Your task to perform on an android device: toggle pop-ups in chrome Image 0: 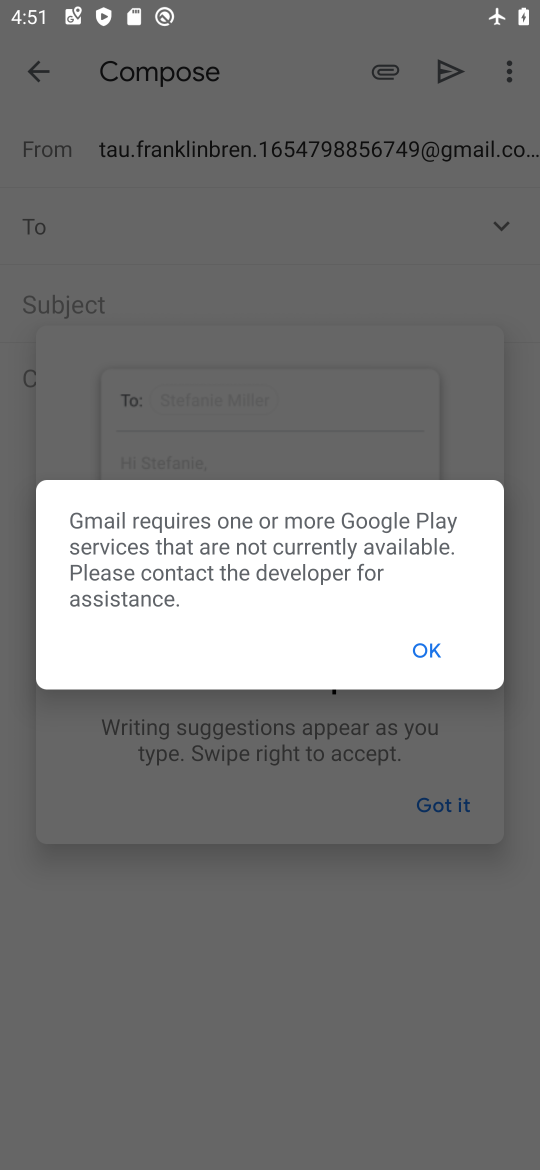
Step 0: press home button
Your task to perform on an android device: toggle pop-ups in chrome Image 1: 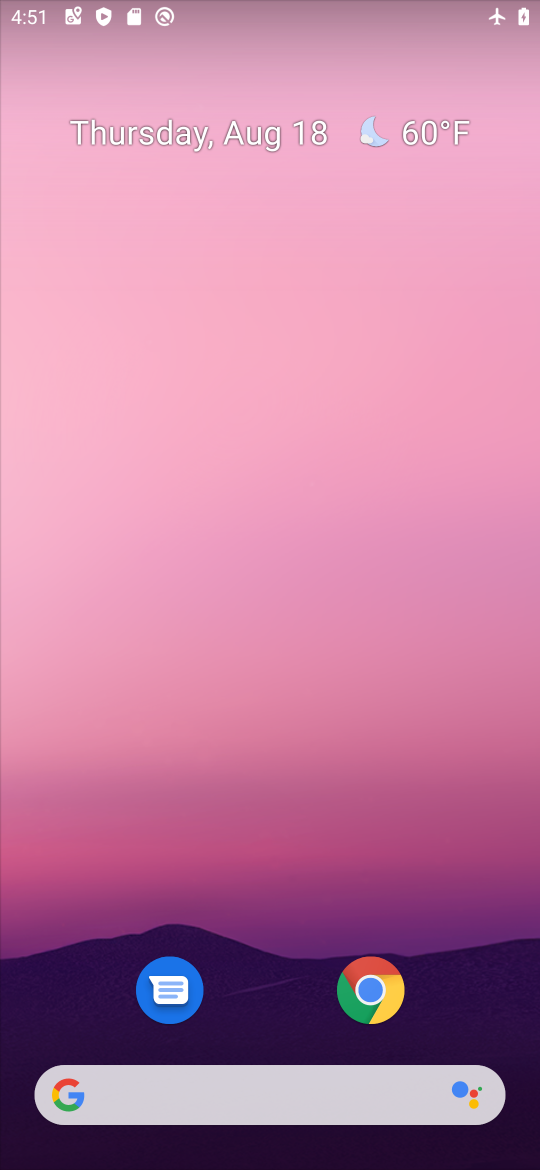
Step 1: drag from (329, 839) to (381, 87)
Your task to perform on an android device: toggle pop-ups in chrome Image 2: 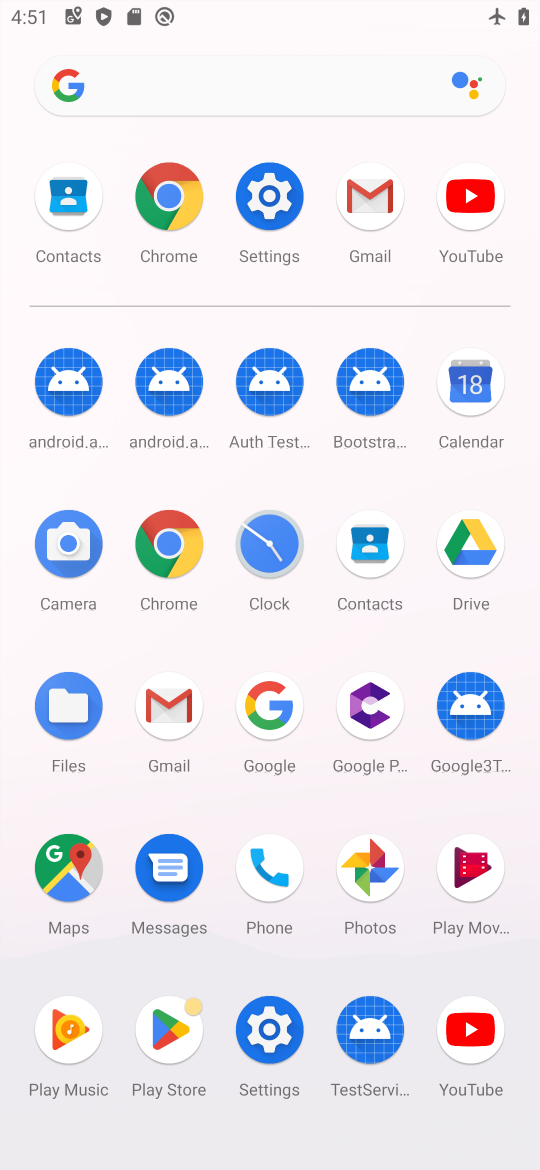
Step 2: click (171, 543)
Your task to perform on an android device: toggle pop-ups in chrome Image 3: 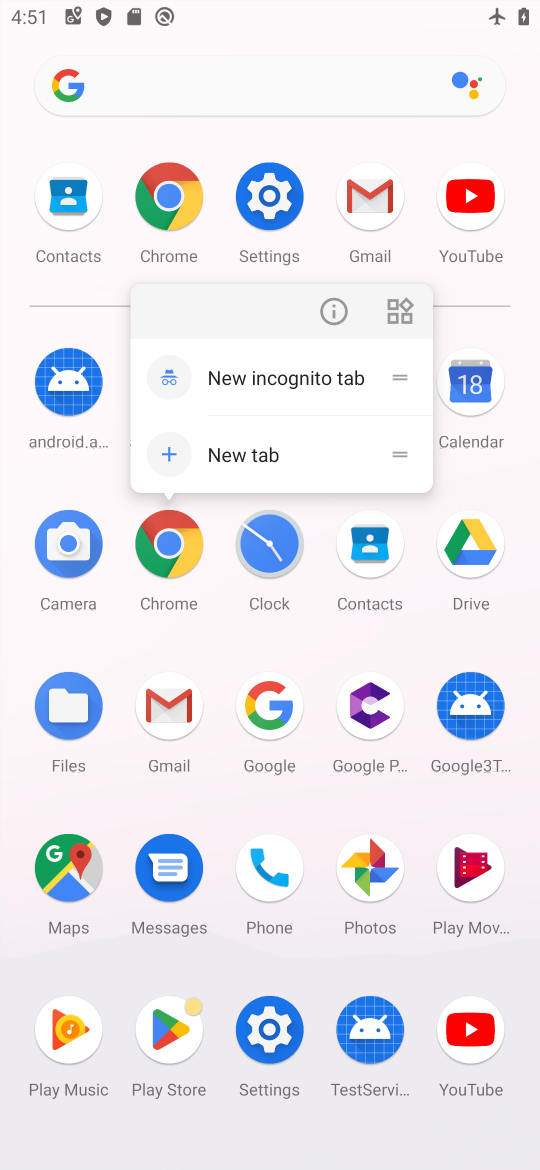
Step 3: click (160, 549)
Your task to perform on an android device: toggle pop-ups in chrome Image 4: 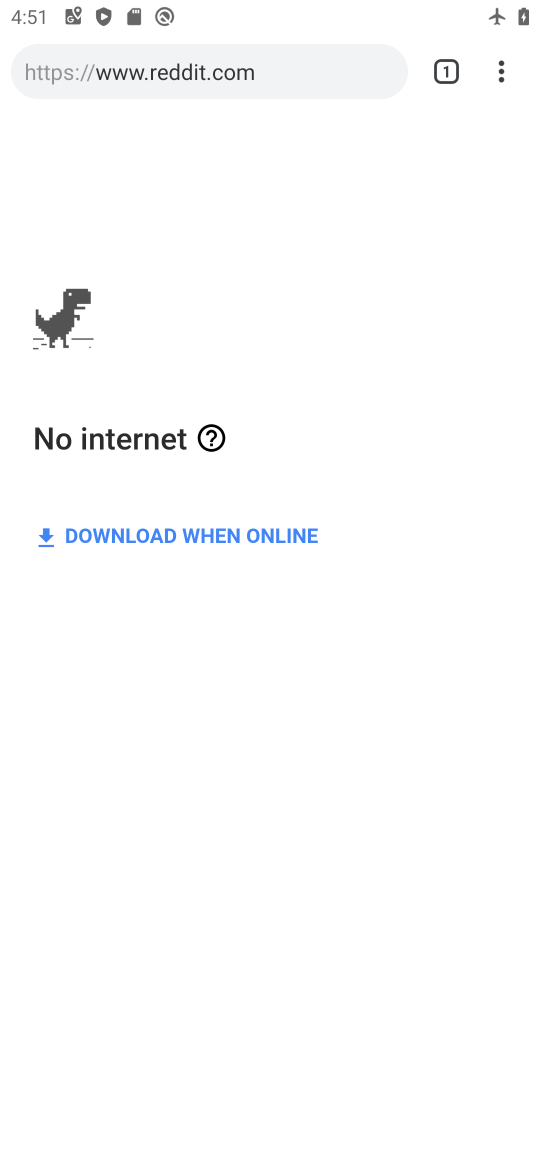
Step 4: drag from (521, 57) to (214, 783)
Your task to perform on an android device: toggle pop-ups in chrome Image 5: 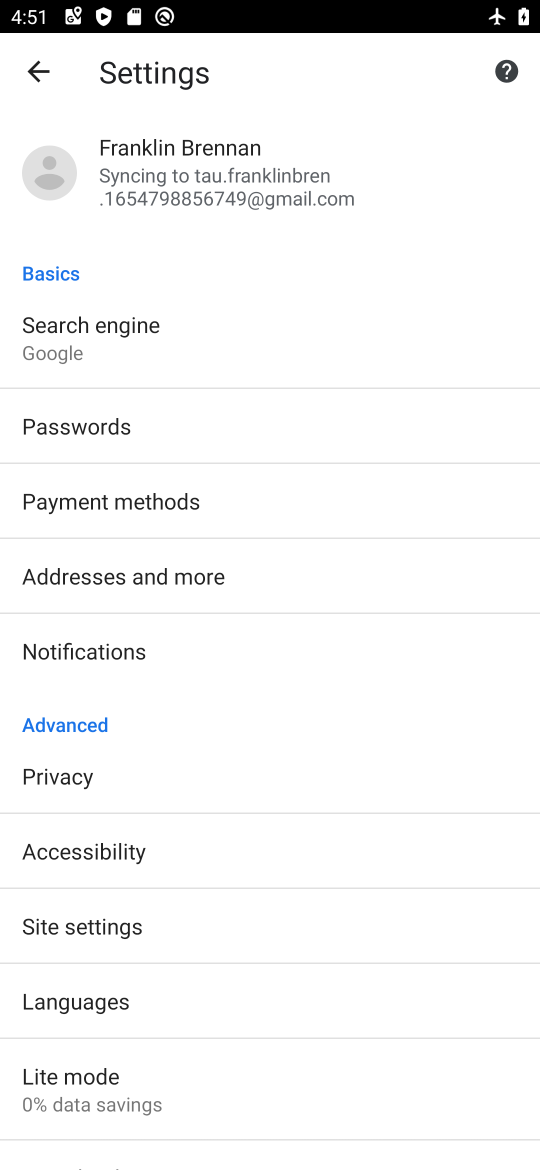
Step 5: drag from (108, 966) to (180, 685)
Your task to perform on an android device: toggle pop-ups in chrome Image 6: 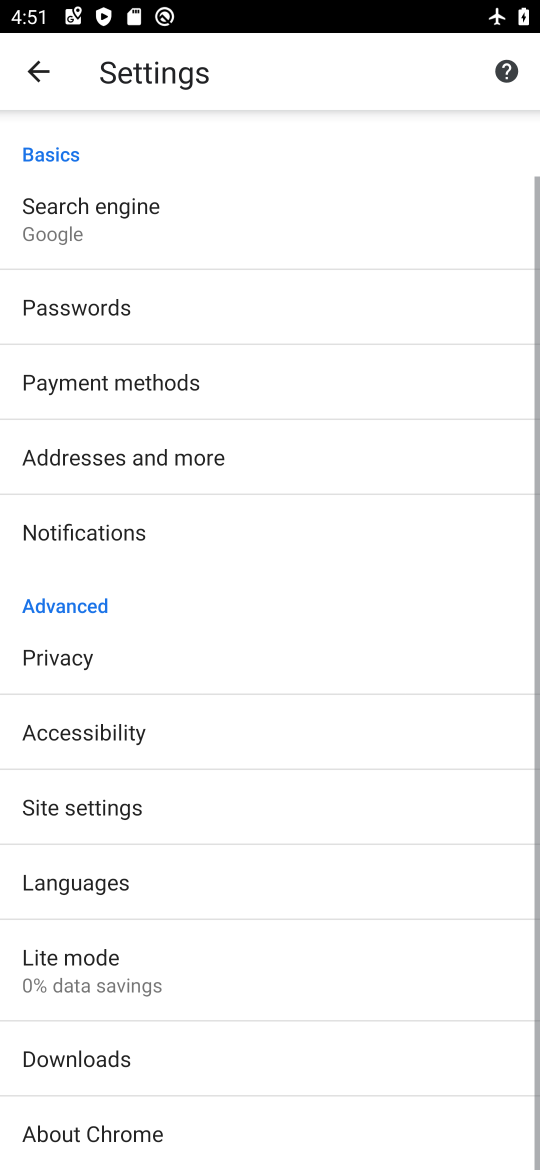
Step 6: click (120, 815)
Your task to perform on an android device: toggle pop-ups in chrome Image 7: 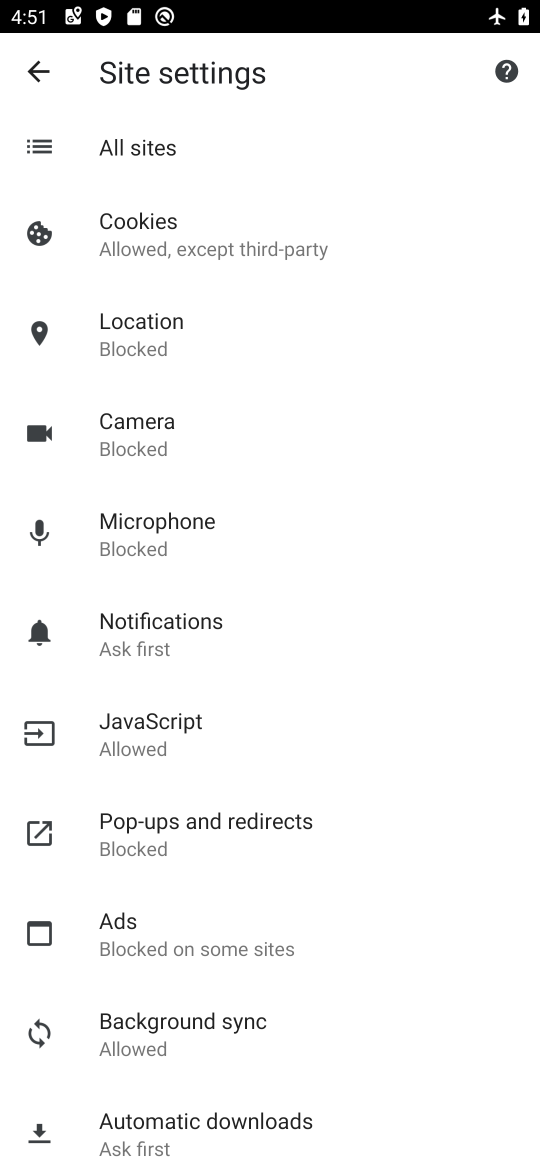
Step 7: click (169, 817)
Your task to perform on an android device: toggle pop-ups in chrome Image 8: 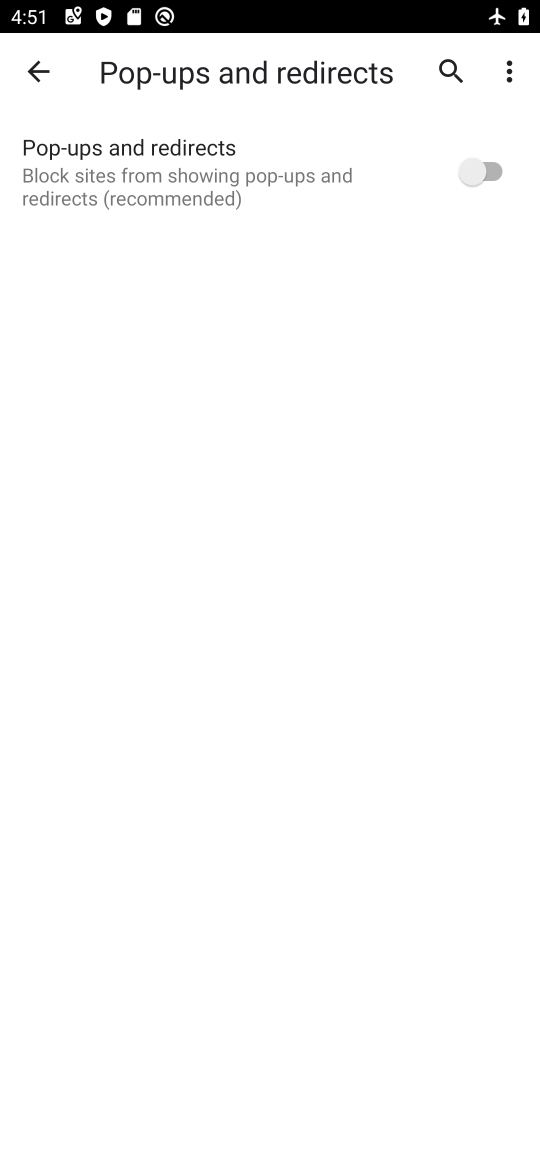
Step 8: click (473, 166)
Your task to perform on an android device: toggle pop-ups in chrome Image 9: 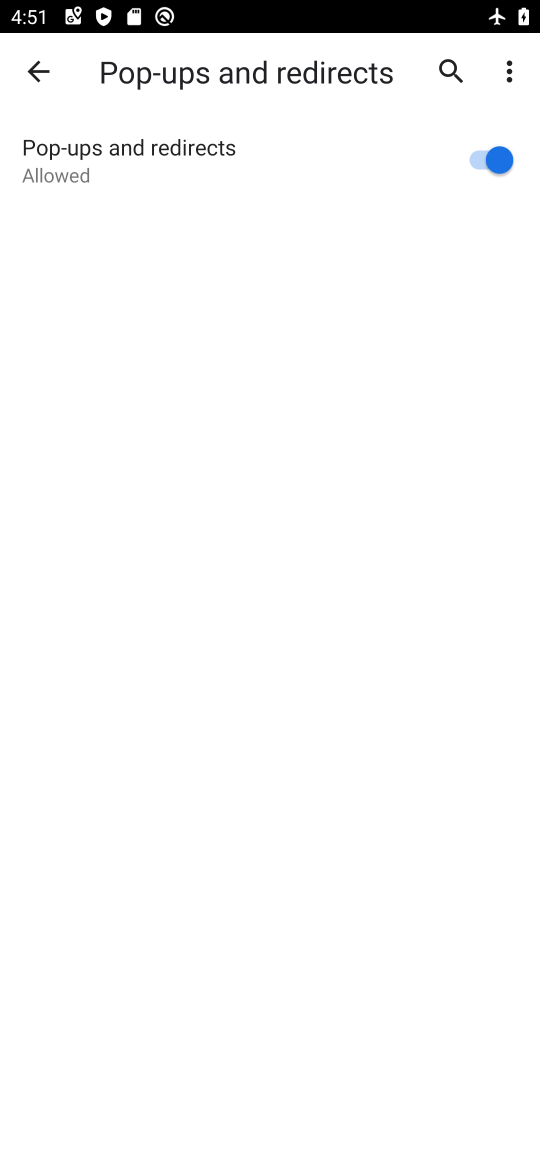
Step 9: task complete